Your task to perform on an android device: Open Chrome and go to the settings page Image 0: 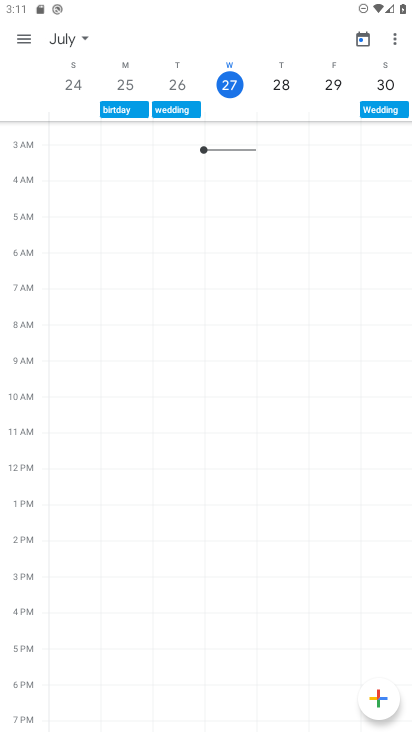
Step 0: press home button
Your task to perform on an android device: Open Chrome and go to the settings page Image 1: 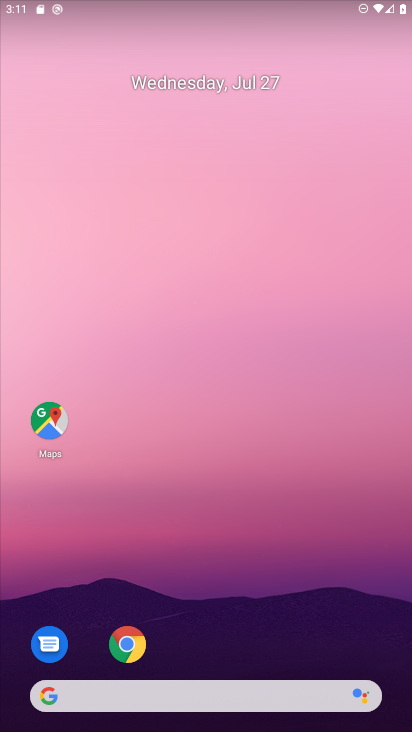
Step 1: click (122, 654)
Your task to perform on an android device: Open Chrome and go to the settings page Image 2: 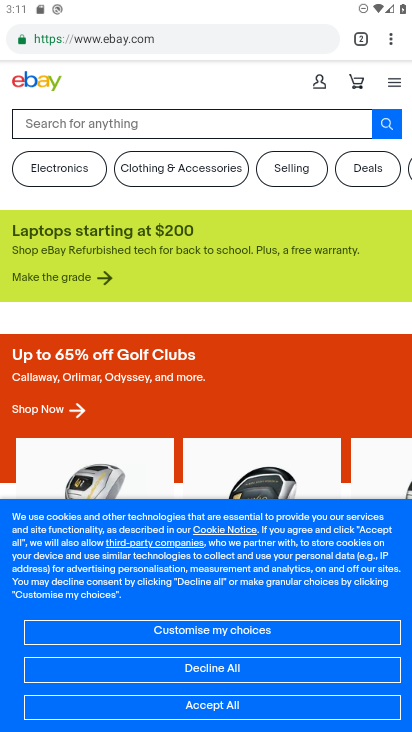
Step 2: click (392, 37)
Your task to perform on an android device: Open Chrome and go to the settings page Image 3: 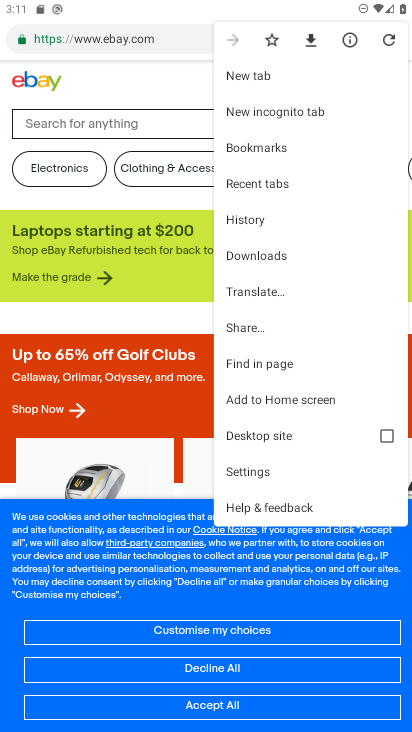
Step 3: click (263, 467)
Your task to perform on an android device: Open Chrome and go to the settings page Image 4: 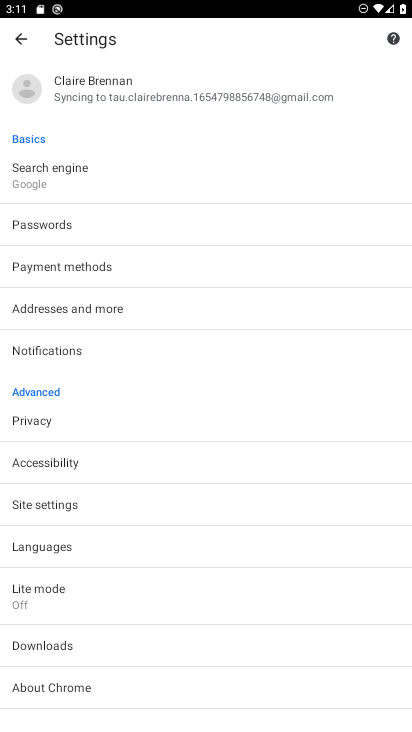
Step 4: task complete